Your task to perform on an android device: Go to accessibility settings Image 0: 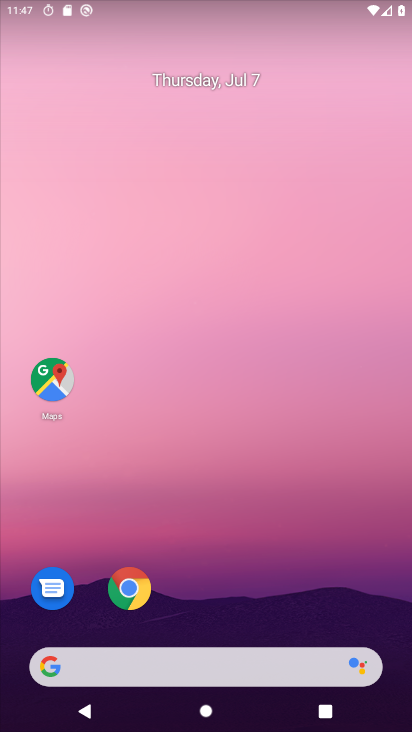
Step 0: drag from (151, 659) to (288, 140)
Your task to perform on an android device: Go to accessibility settings Image 1: 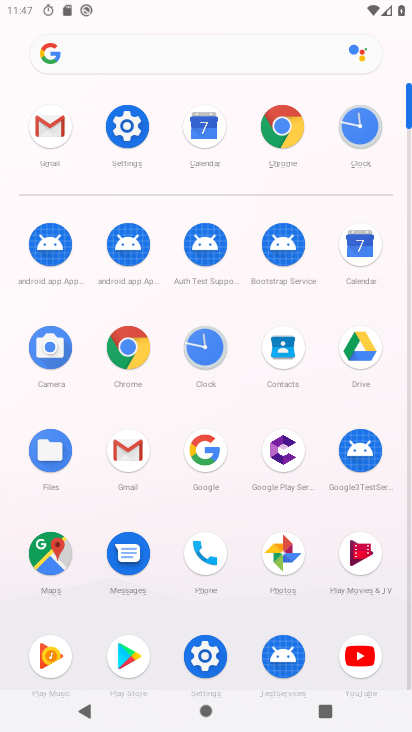
Step 1: click (129, 121)
Your task to perform on an android device: Go to accessibility settings Image 2: 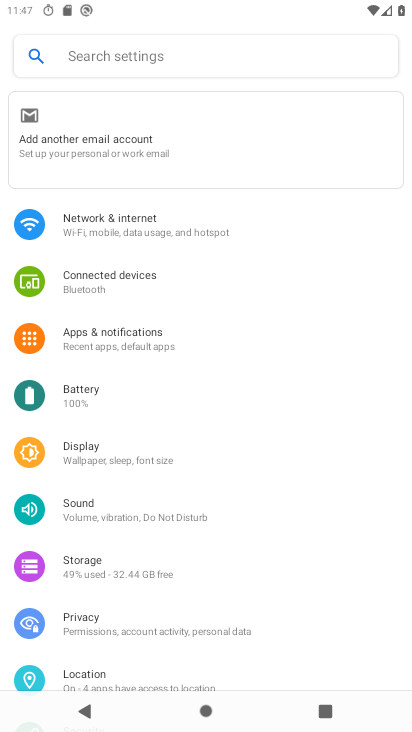
Step 2: drag from (202, 610) to (261, 43)
Your task to perform on an android device: Go to accessibility settings Image 3: 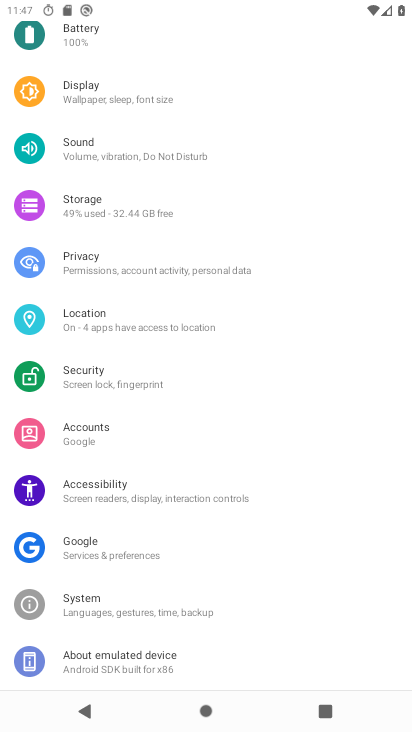
Step 3: click (134, 498)
Your task to perform on an android device: Go to accessibility settings Image 4: 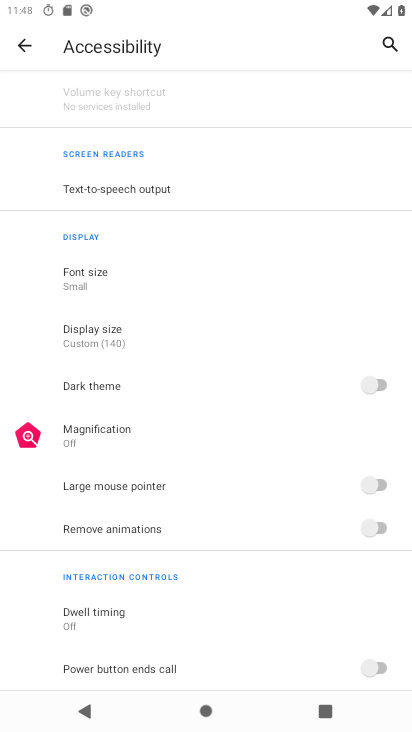
Step 4: task complete